Your task to perform on an android device: open a new tab in the chrome app Image 0: 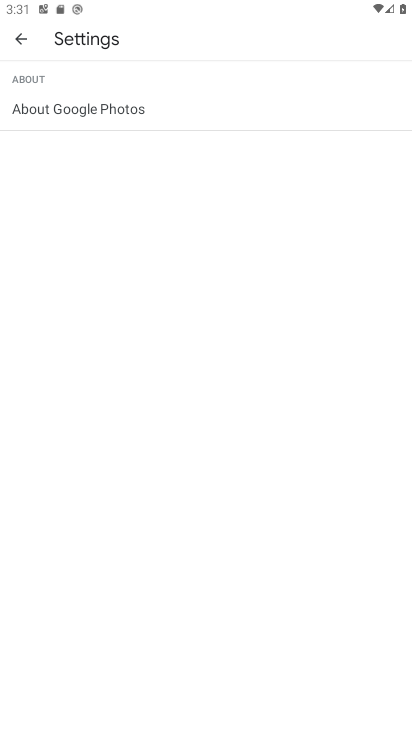
Step 0: press home button
Your task to perform on an android device: open a new tab in the chrome app Image 1: 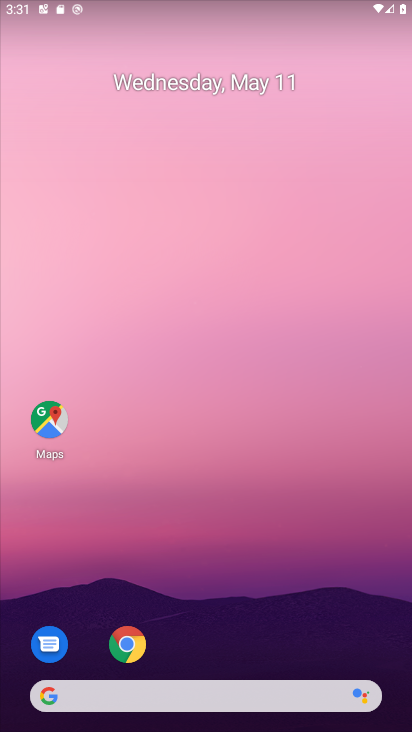
Step 1: drag from (229, 677) to (207, 56)
Your task to perform on an android device: open a new tab in the chrome app Image 2: 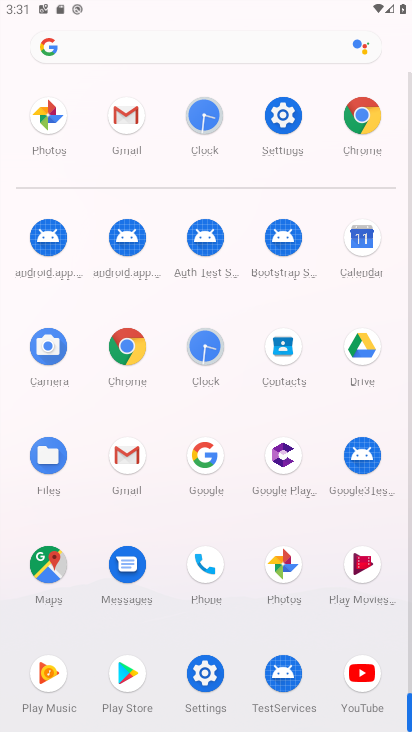
Step 2: click (131, 343)
Your task to perform on an android device: open a new tab in the chrome app Image 3: 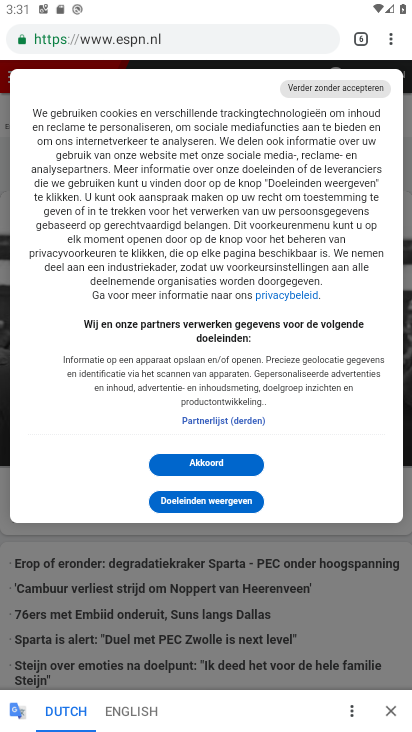
Step 3: click (363, 48)
Your task to perform on an android device: open a new tab in the chrome app Image 4: 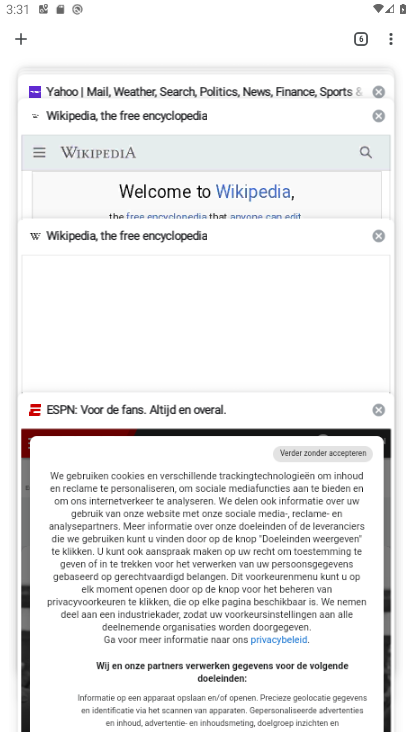
Step 4: click (7, 35)
Your task to perform on an android device: open a new tab in the chrome app Image 5: 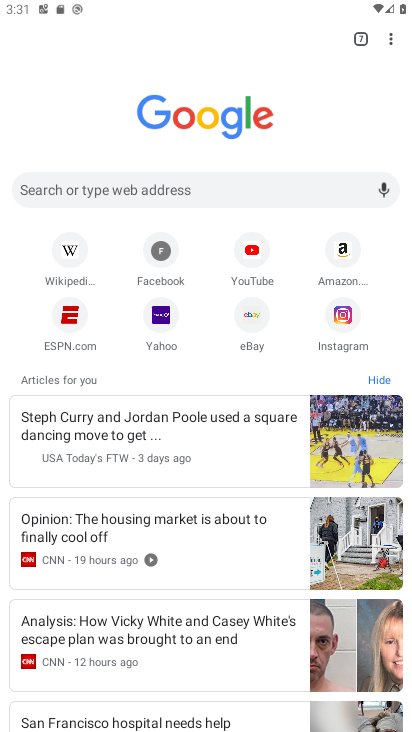
Step 5: task complete